Your task to perform on an android device: turn on airplane mode Image 0: 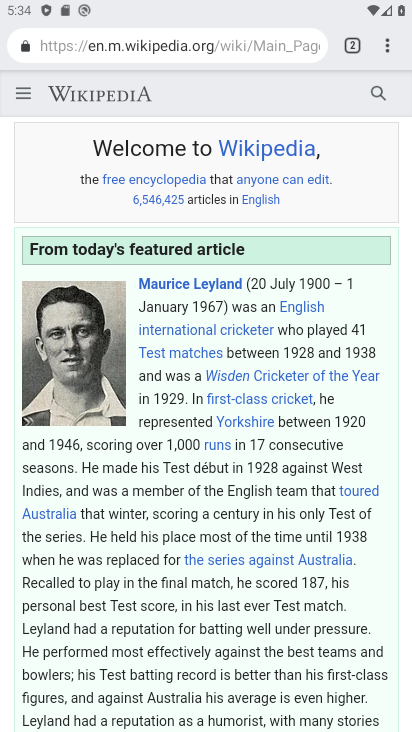
Step 0: press home button
Your task to perform on an android device: turn on airplane mode Image 1: 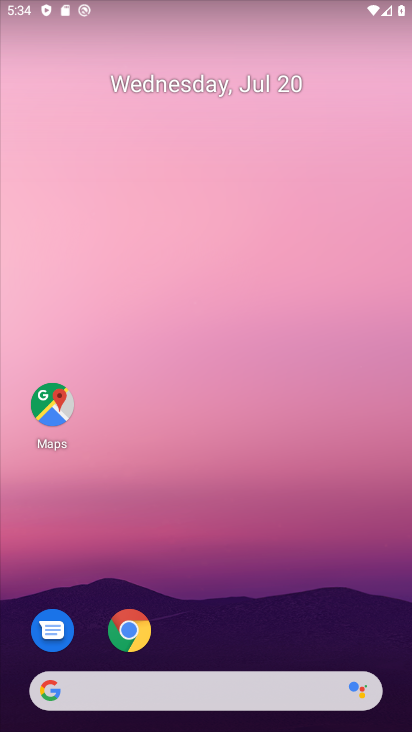
Step 1: drag from (257, 698) to (362, 2)
Your task to perform on an android device: turn on airplane mode Image 2: 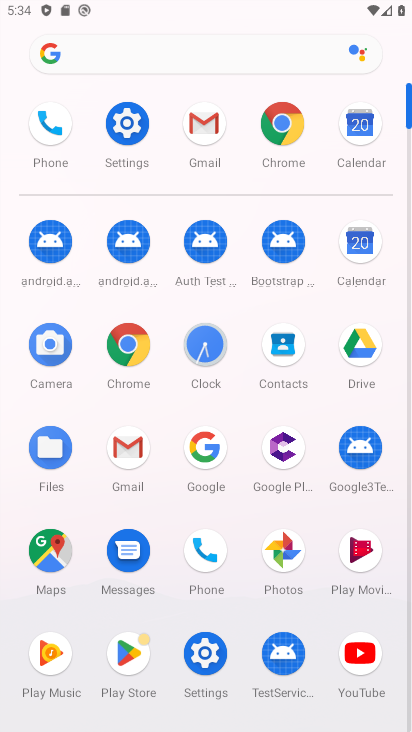
Step 2: click (137, 118)
Your task to perform on an android device: turn on airplane mode Image 3: 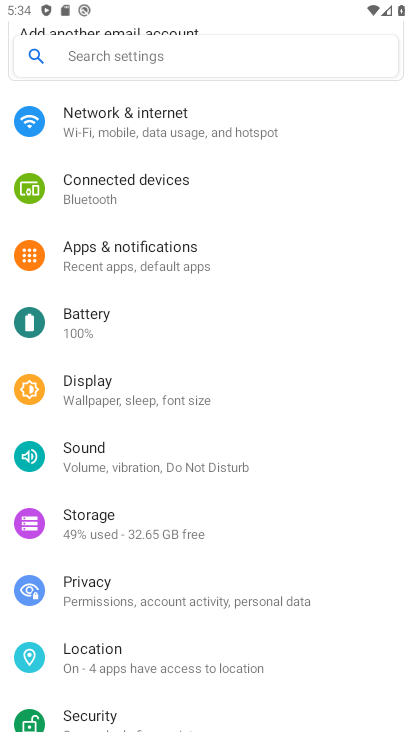
Step 3: click (197, 129)
Your task to perform on an android device: turn on airplane mode Image 4: 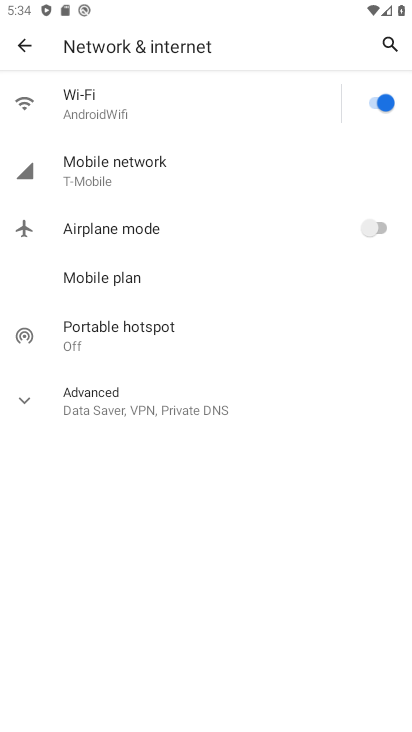
Step 4: click (381, 227)
Your task to perform on an android device: turn on airplane mode Image 5: 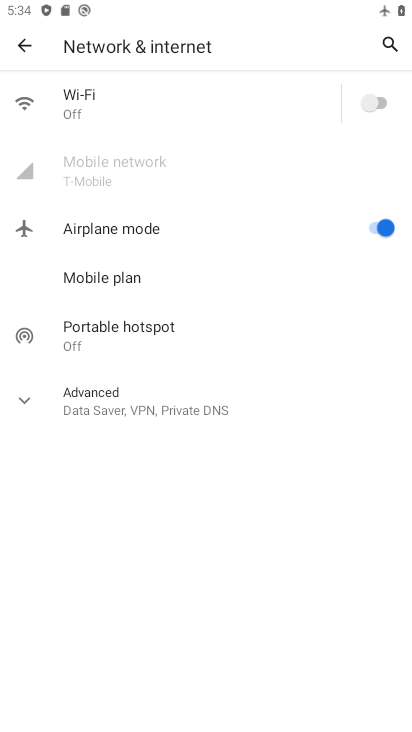
Step 5: task complete